Your task to perform on an android device: turn off sleep mode Image 0: 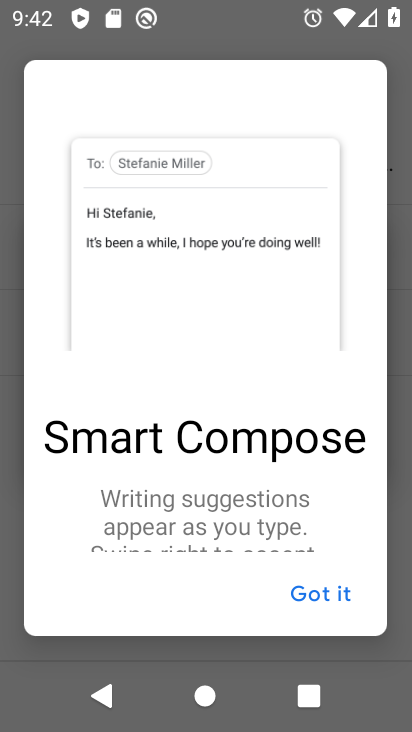
Step 0: press home button
Your task to perform on an android device: turn off sleep mode Image 1: 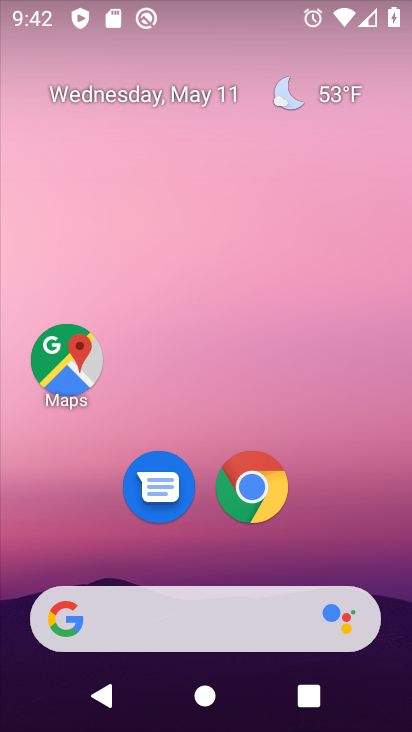
Step 1: drag from (205, 550) to (259, 167)
Your task to perform on an android device: turn off sleep mode Image 2: 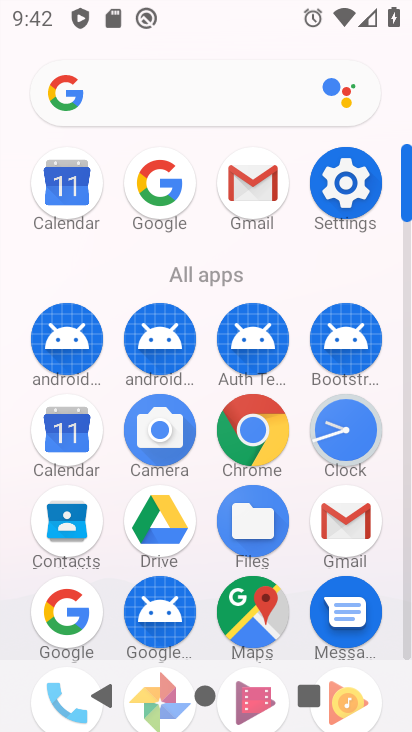
Step 2: click (328, 180)
Your task to perform on an android device: turn off sleep mode Image 3: 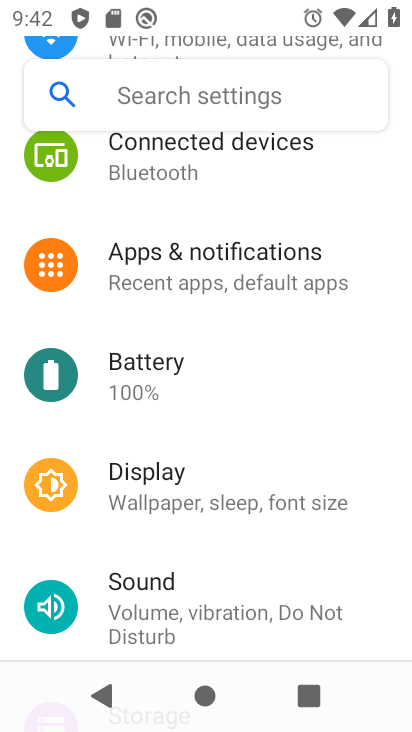
Step 3: click (255, 467)
Your task to perform on an android device: turn off sleep mode Image 4: 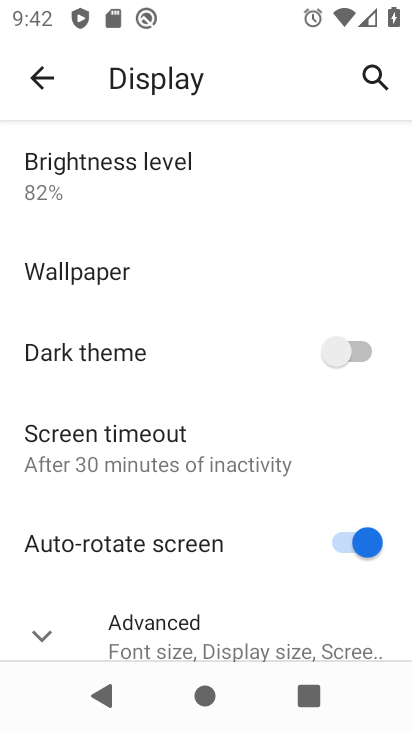
Step 4: click (146, 459)
Your task to perform on an android device: turn off sleep mode Image 5: 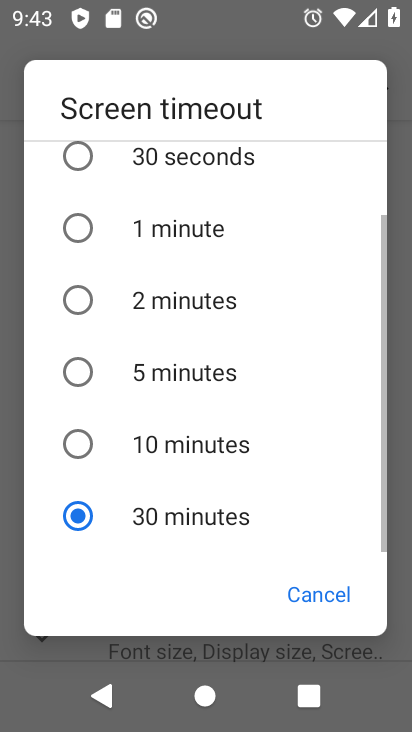
Step 5: click (181, 290)
Your task to perform on an android device: turn off sleep mode Image 6: 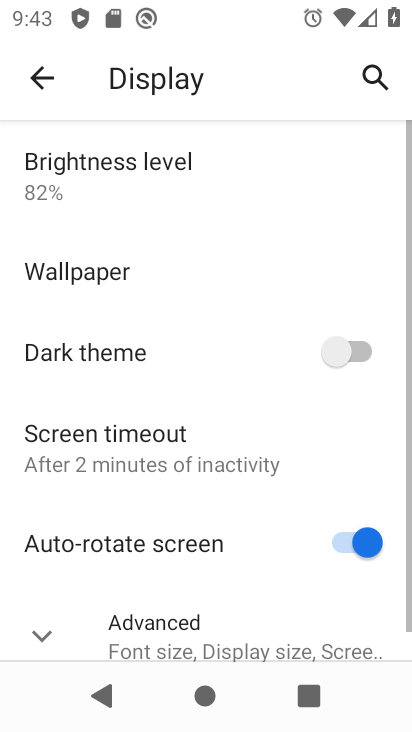
Step 6: task complete